Your task to perform on an android device: turn on airplane mode Image 0: 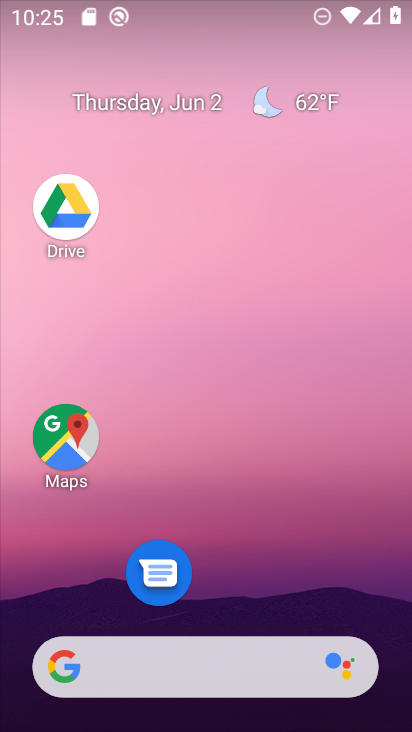
Step 0: drag from (195, 611) to (135, 0)
Your task to perform on an android device: turn on airplane mode Image 1: 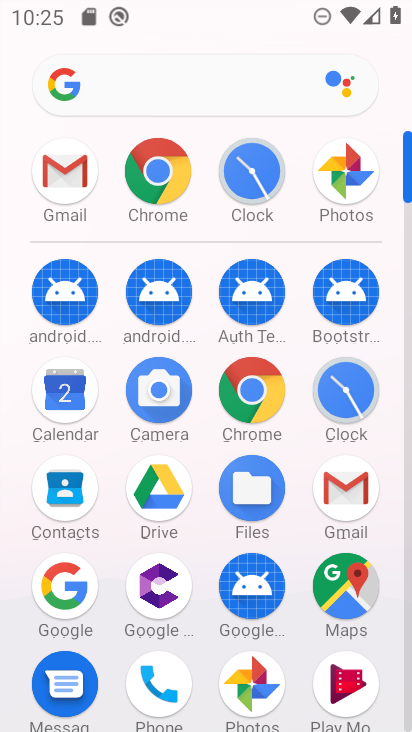
Step 1: drag from (205, 629) to (148, 48)
Your task to perform on an android device: turn on airplane mode Image 2: 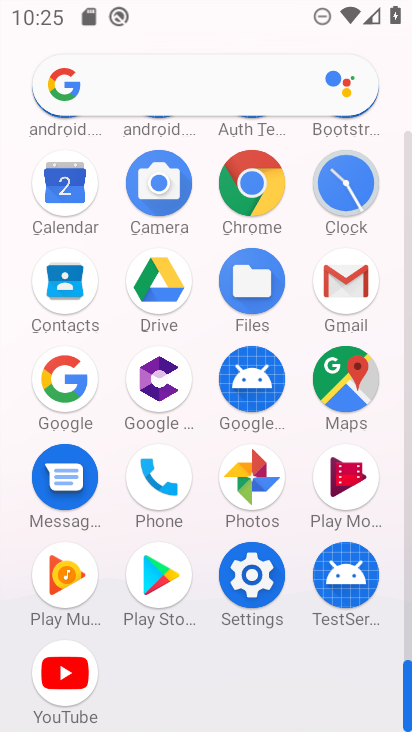
Step 2: click (276, 575)
Your task to perform on an android device: turn on airplane mode Image 3: 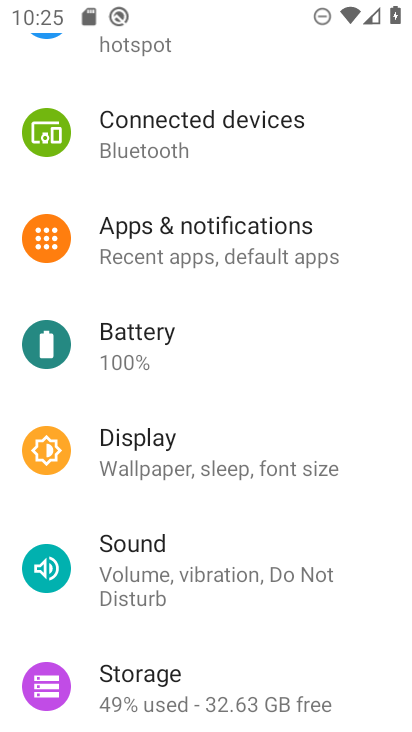
Step 3: drag from (186, 140) to (192, 423)
Your task to perform on an android device: turn on airplane mode Image 4: 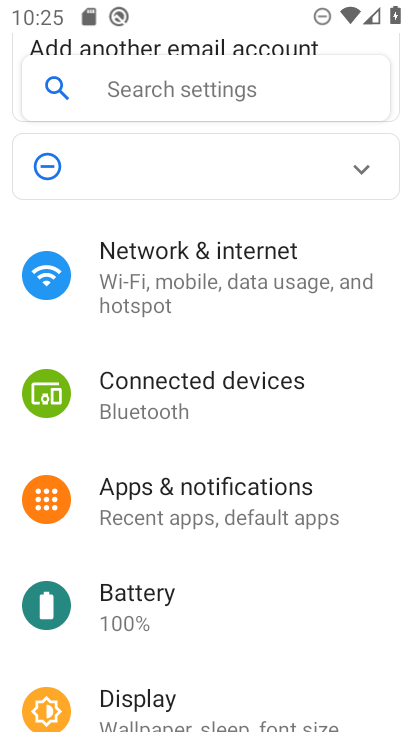
Step 4: click (193, 248)
Your task to perform on an android device: turn on airplane mode Image 5: 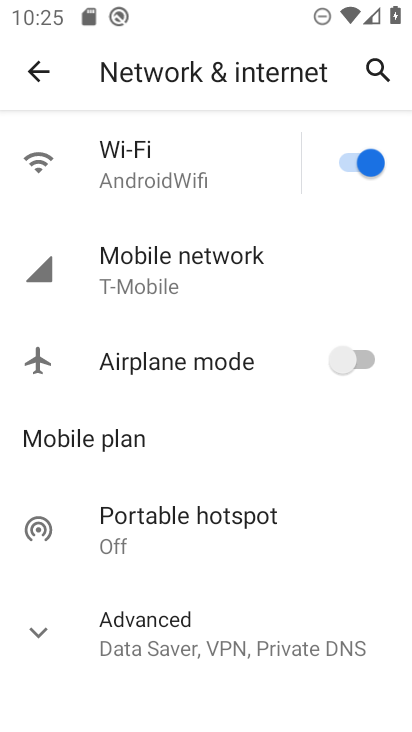
Step 5: click (333, 362)
Your task to perform on an android device: turn on airplane mode Image 6: 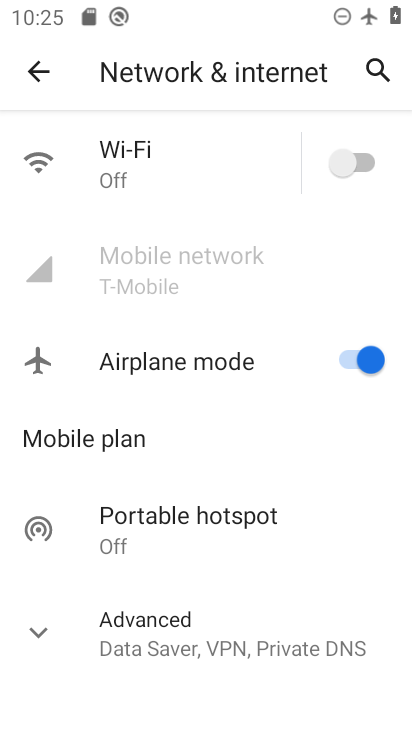
Step 6: task complete